Your task to perform on an android device: toggle javascript in the chrome app Image 0: 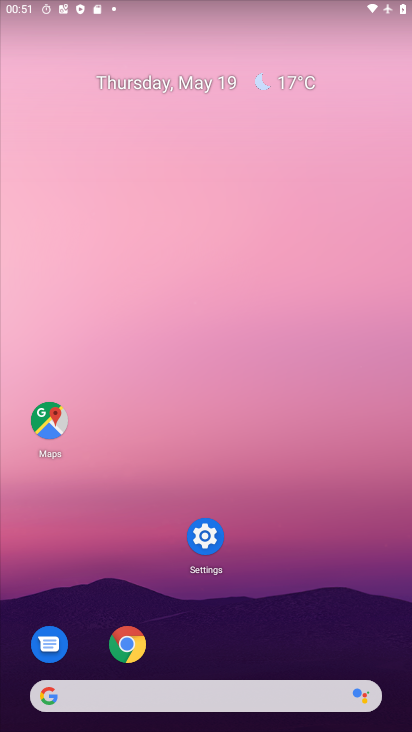
Step 0: click (133, 647)
Your task to perform on an android device: toggle javascript in the chrome app Image 1: 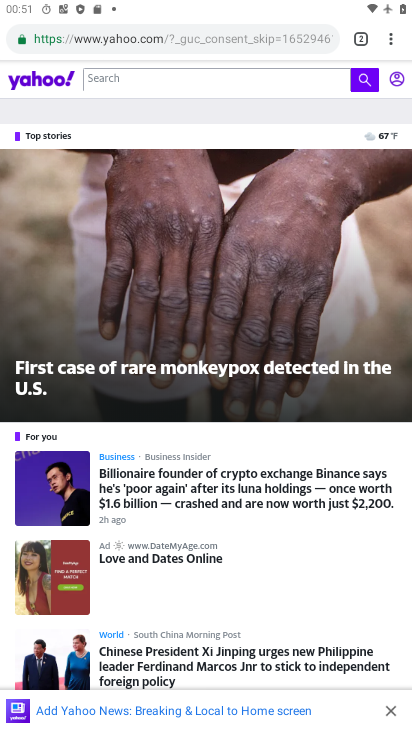
Step 1: drag from (392, 33) to (270, 472)
Your task to perform on an android device: toggle javascript in the chrome app Image 2: 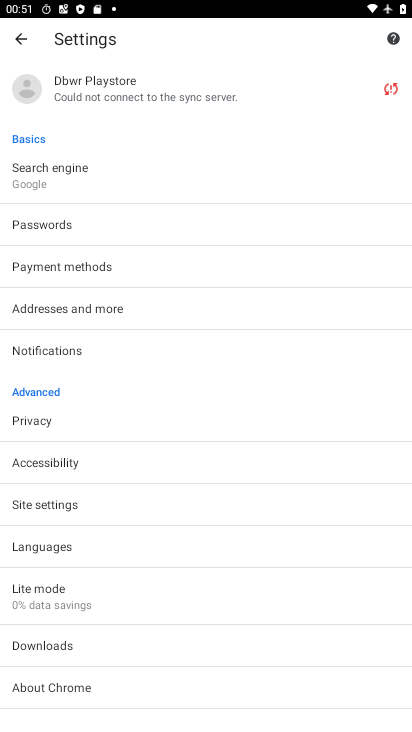
Step 2: click (40, 509)
Your task to perform on an android device: toggle javascript in the chrome app Image 3: 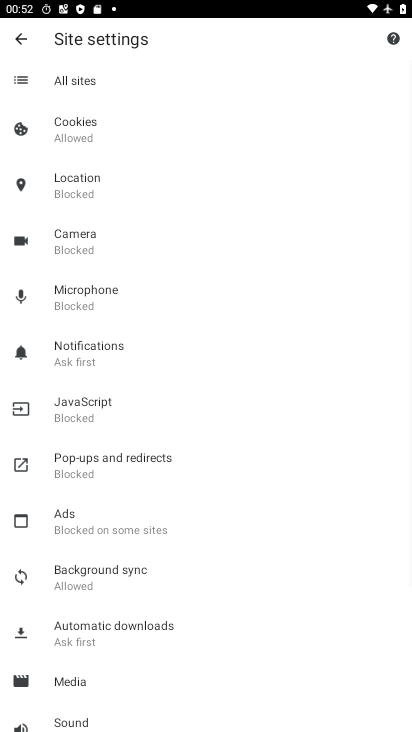
Step 3: click (106, 390)
Your task to perform on an android device: toggle javascript in the chrome app Image 4: 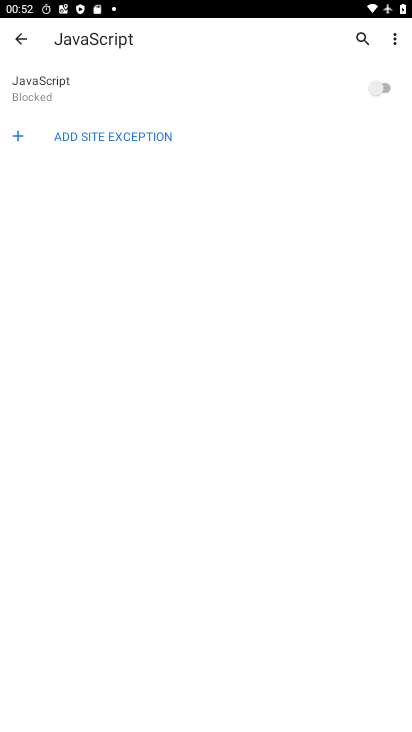
Step 4: click (373, 89)
Your task to perform on an android device: toggle javascript in the chrome app Image 5: 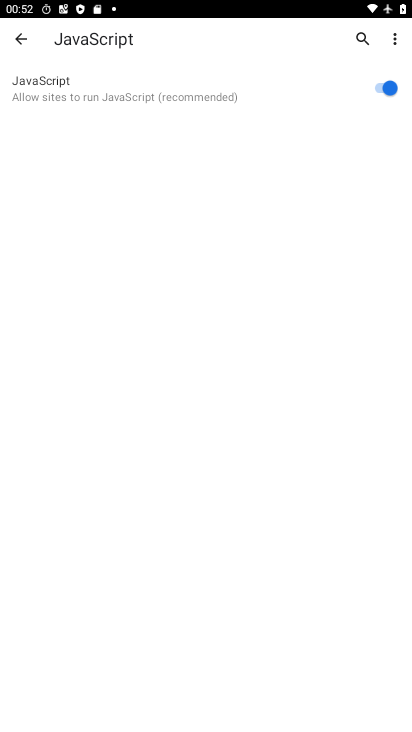
Step 5: task complete